Your task to perform on an android device: Open maps Image 0: 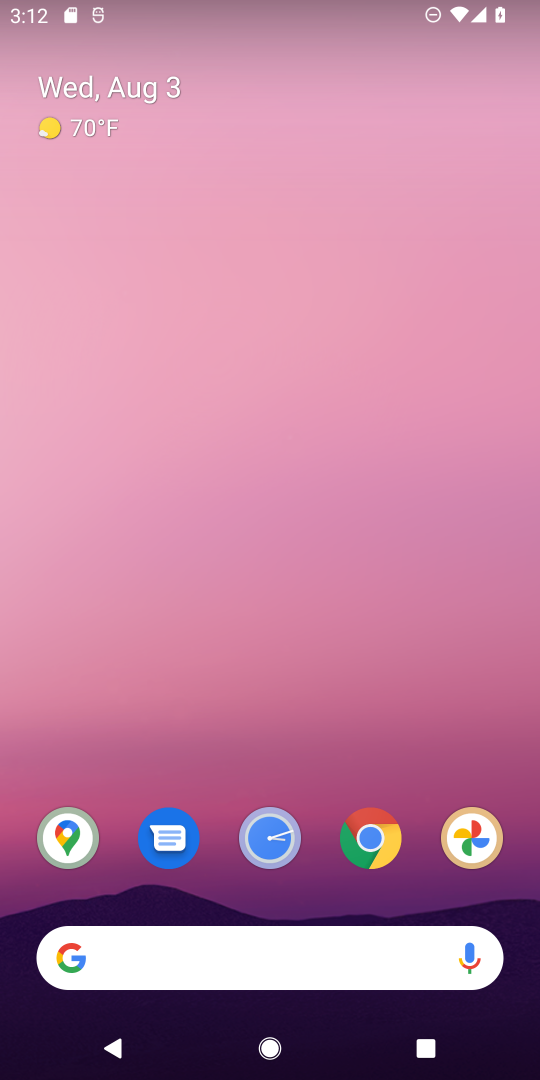
Step 0: click (70, 855)
Your task to perform on an android device: Open maps Image 1: 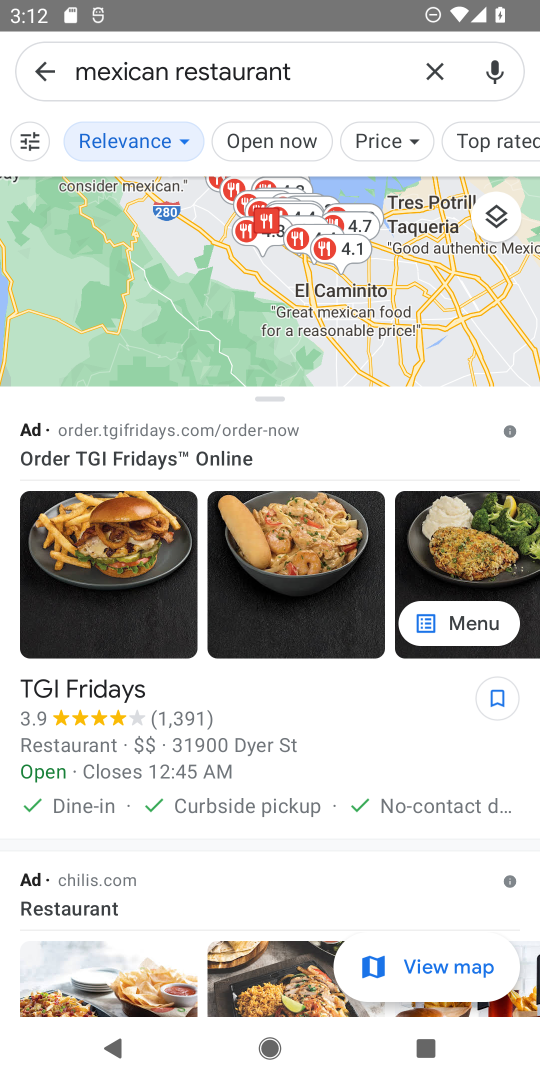
Step 1: task complete